Your task to perform on an android device: add a contact in the contacts app Image 0: 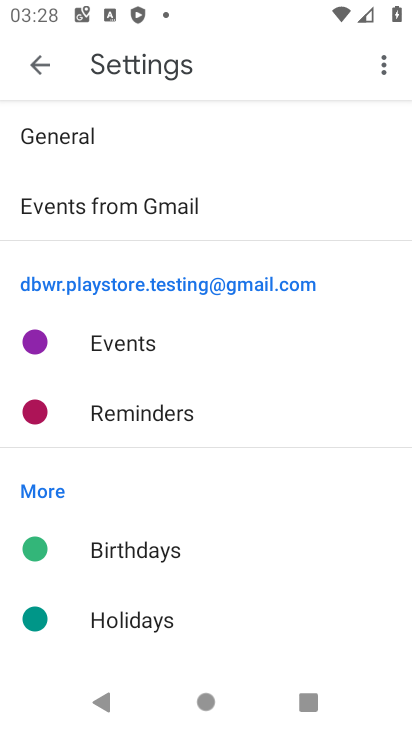
Step 0: press home button
Your task to perform on an android device: add a contact in the contacts app Image 1: 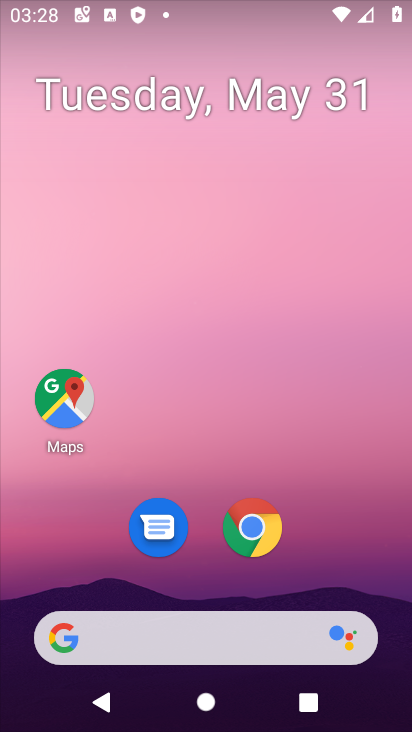
Step 1: drag from (394, 633) to (357, 121)
Your task to perform on an android device: add a contact in the contacts app Image 2: 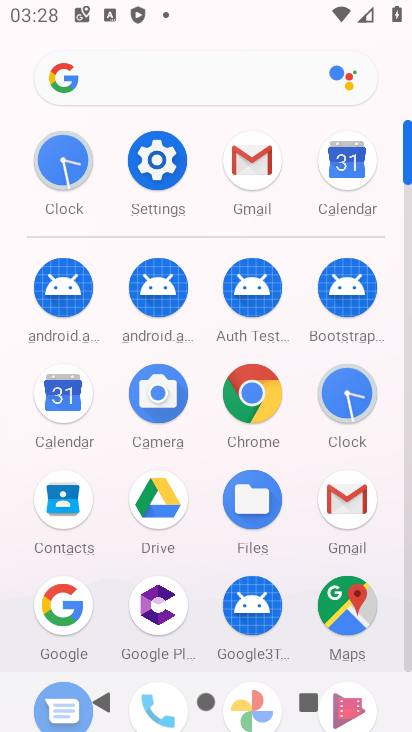
Step 2: click (406, 656)
Your task to perform on an android device: add a contact in the contacts app Image 3: 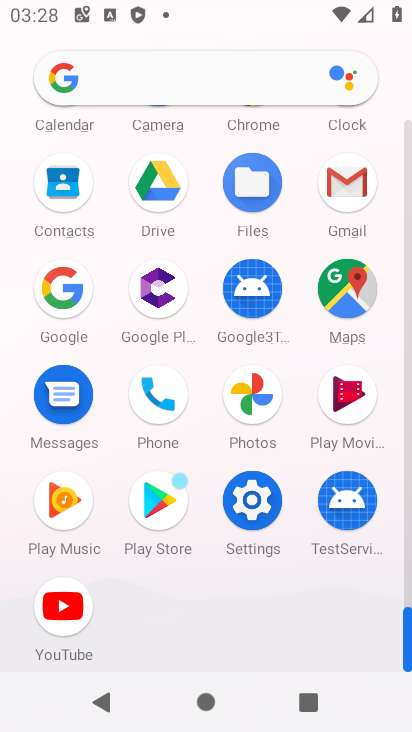
Step 3: click (58, 182)
Your task to perform on an android device: add a contact in the contacts app Image 4: 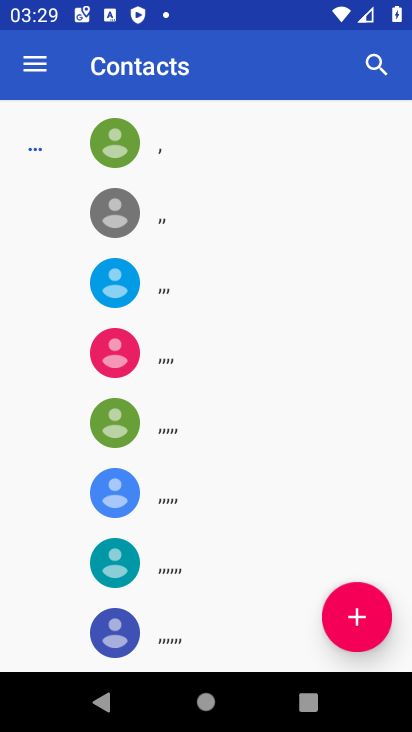
Step 4: click (354, 613)
Your task to perform on an android device: add a contact in the contacts app Image 5: 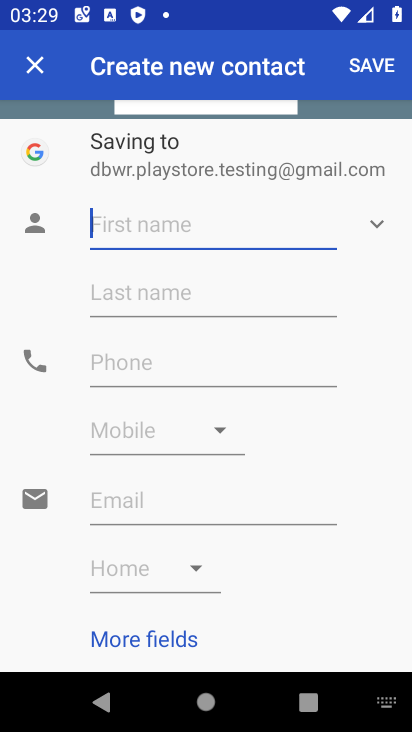
Step 5: type "uioigjbvms"
Your task to perform on an android device: add a contact in the contacts app Image 6: 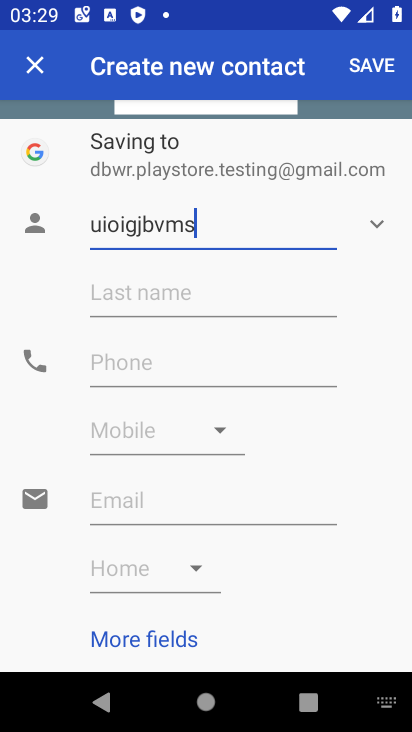
Step 6: click (157, 364)
Your task to perform on an android device: add a contact in the contacts app Image 7: 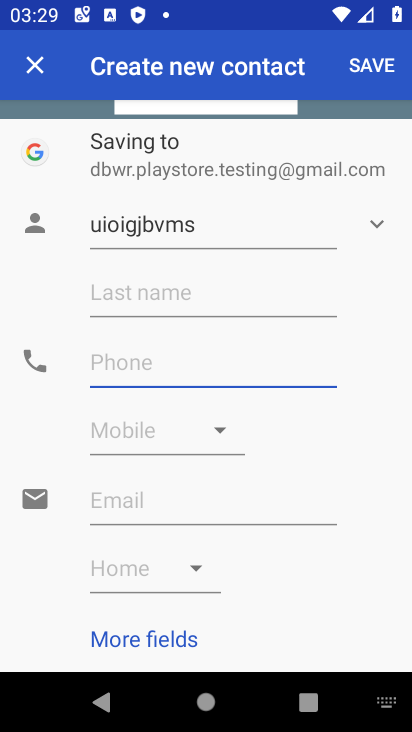
Step 7: type "09876543"
Your task to perform on an android device: add a contact in the contacts app Image 8: 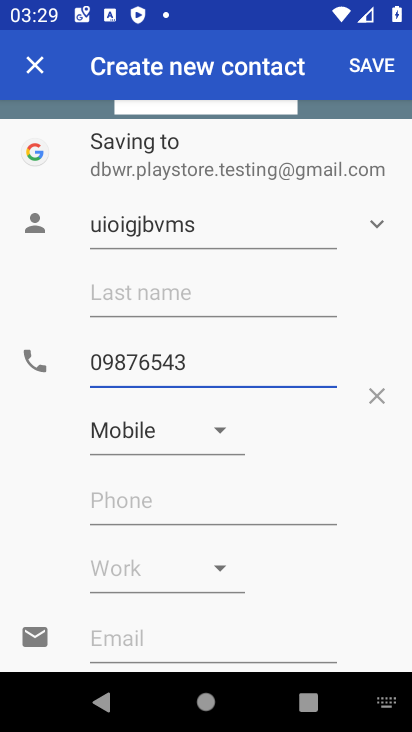
Step 8: click (219, 430)
Your task to perform on an android device: add a contact in the contacts app Image 9: 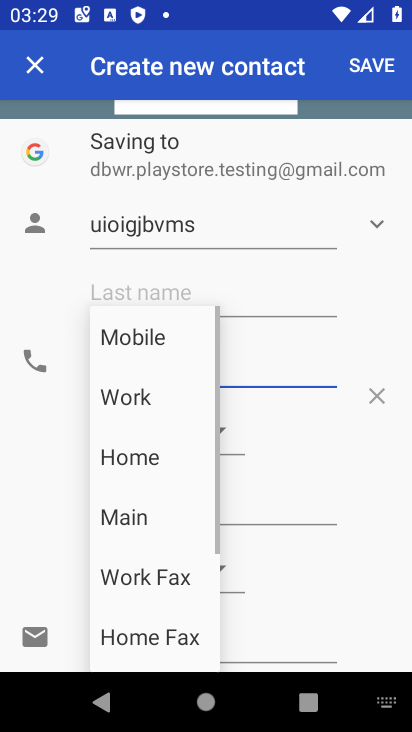
Step 9: click (122, 345)
Your task to perform on an android device: add a contact in the contacts app Image 10: 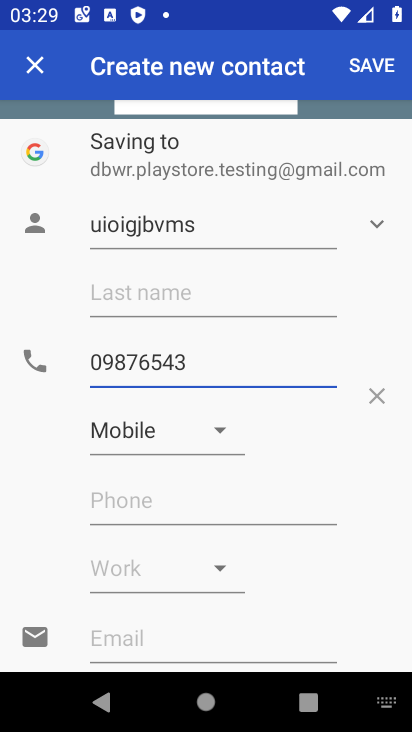
Step 10: click (363, 51)
Your task to perform on an android device: add a contact in the contacts app Image 11: 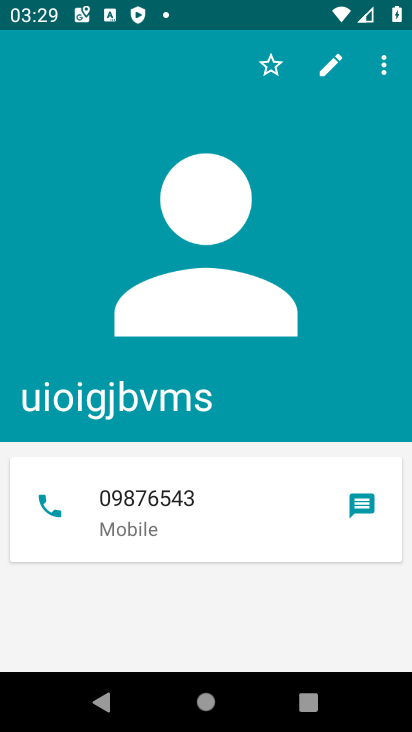
Step 11: task complete